Your task to perform on an android device: Go to CNN.com Image 0: 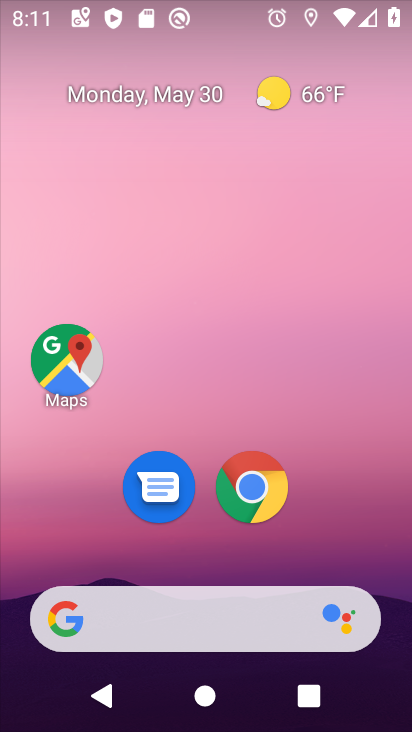
Step 0: press home button
Your task to perform on an android device: Go to CNN.com Image 1: 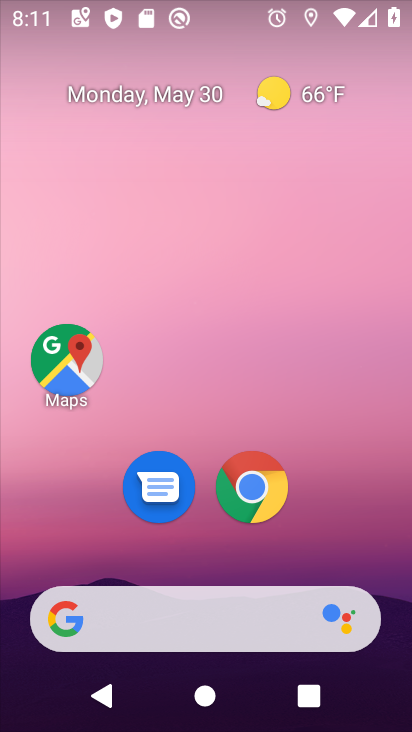
Step 1: click (59, 636)
Your task to perform on an android device: Go to CNN.com Image 2: 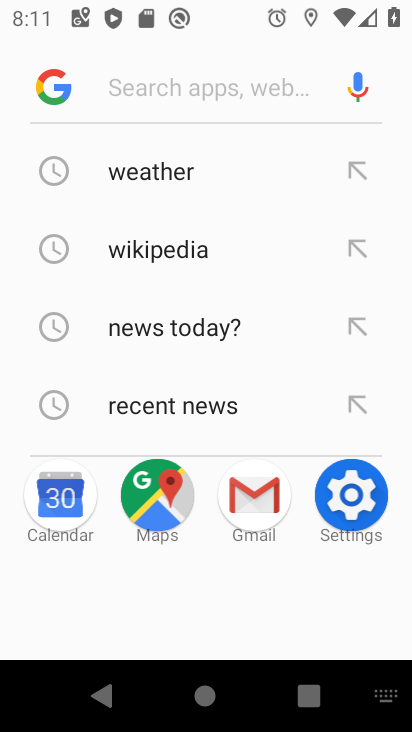
Step 2: type "CNN.com"
Your task to perform on an android device: Go to CNN.com Image 3: 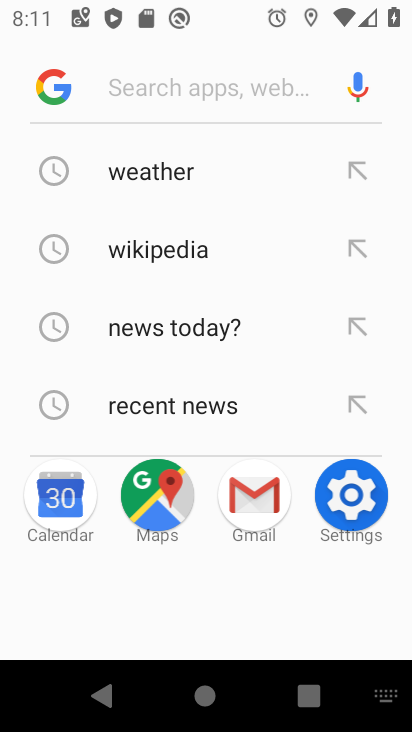
Step 3: click (201, 87)
Your task to perform on an android device: Go to CNN.com Image 4: 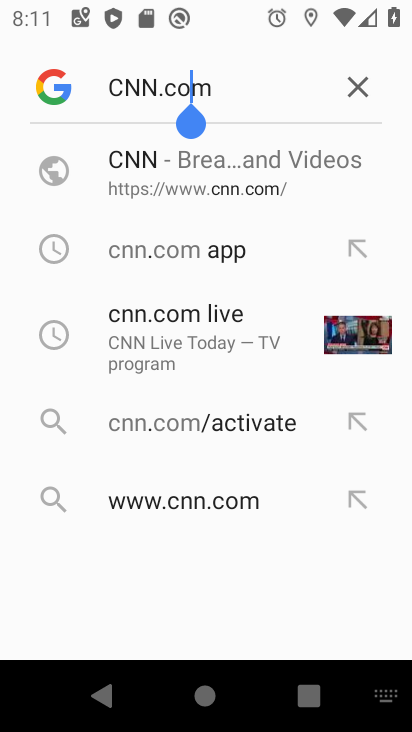
Step 4: click (152, 169)
Your task to perform on an android device: Go to CNN.com Image 5: 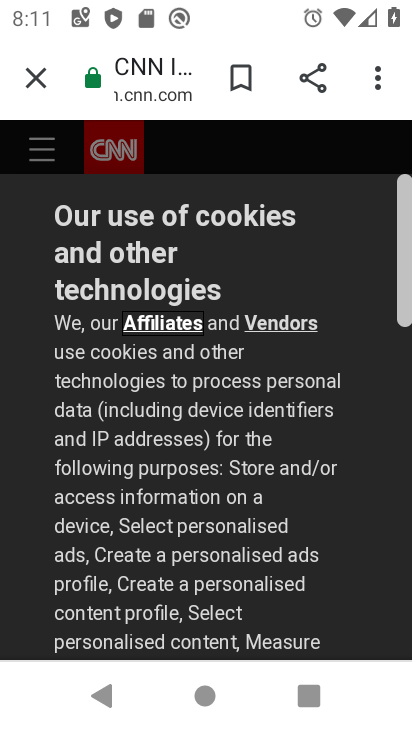
Step 5: task complete